Your task to perform on an android device: change the clock display to show seconds Image 0: 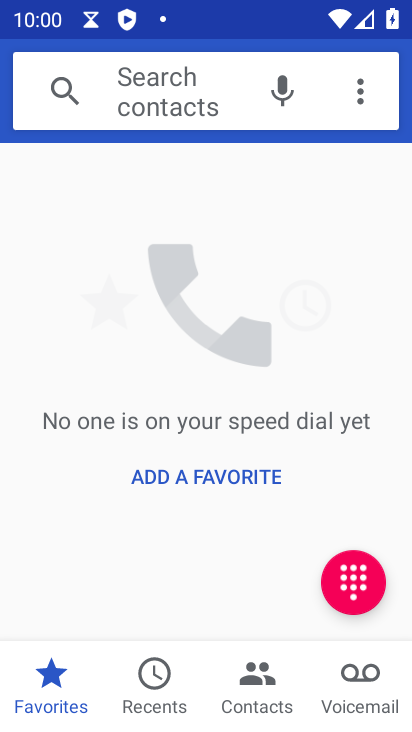
Step 0: press home button
Your task to perform on an android device: change the clock display to show seconds Image 1: 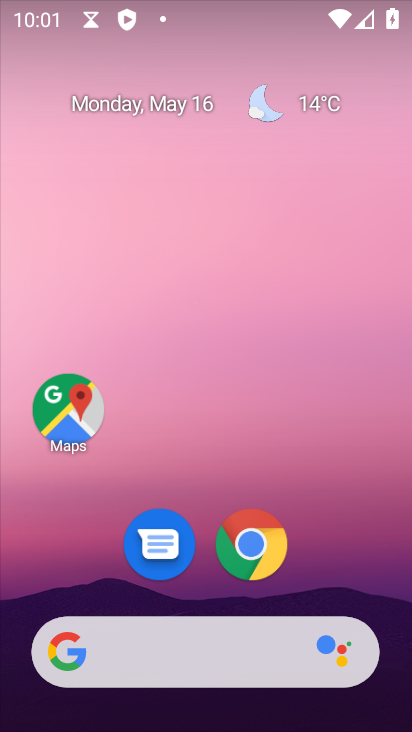
Step 1: drag from (352, 564) to (297, 162)
Your task to perform on an android device: change the clock display to show seconds Image 2: 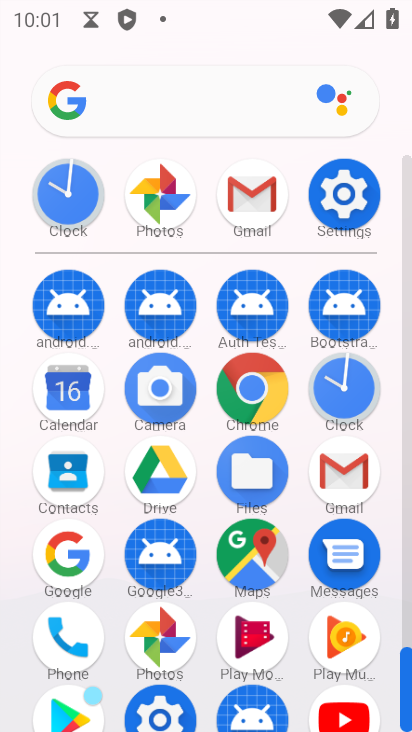
Step 2: click (348, 398)
Your task to perform on an android device: change the clock display to show seconds Image 3: 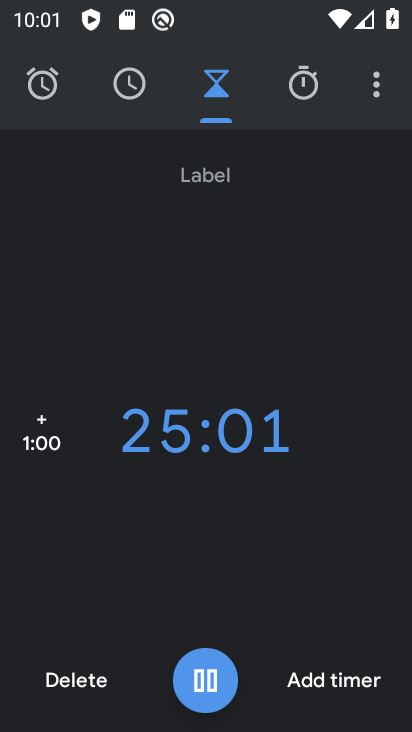
Step 3: click (377, 83)
Your task to perform on an android device: change the clock display to show seconds Image 4: 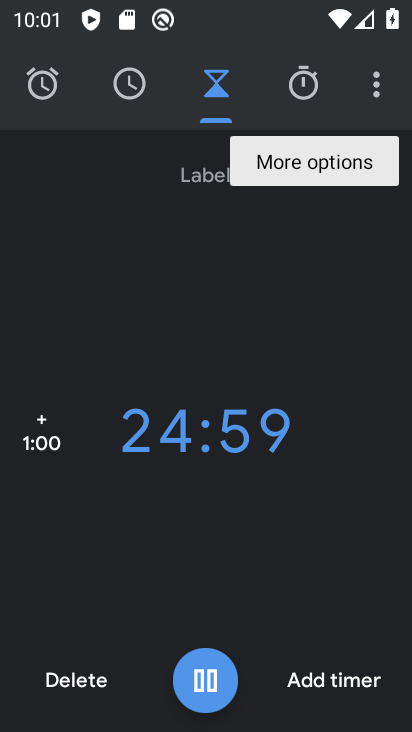
Step 4: click (380, 87)
Your task to perform on an android device: change the clock display to show seconds Image 5: 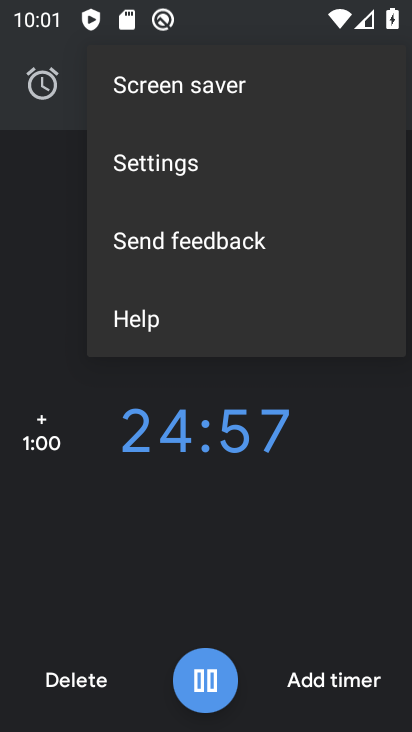
Step 5: click (238, 172)
Your task to perform on an android device: change the clock display to show seconds Image 6: 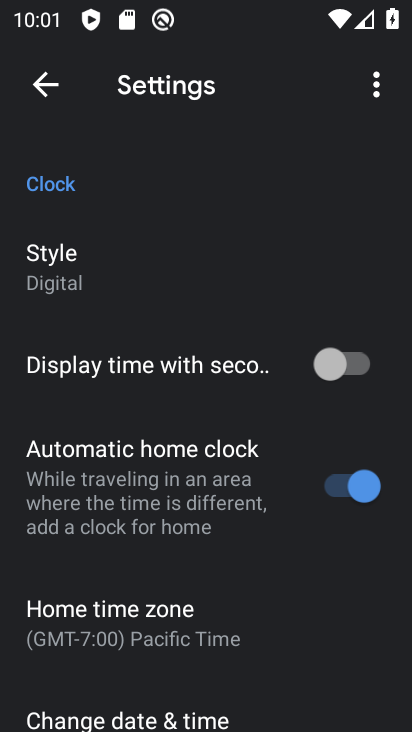
Step 6: click (344, 359)
Your task to perform on an android device: change the clock display to show seconds Image 7: 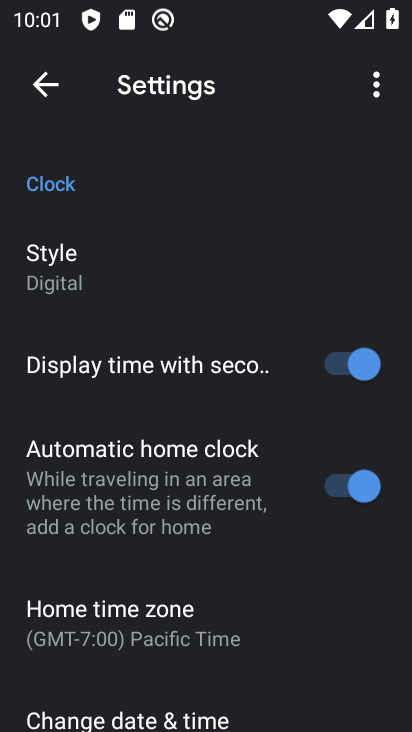
Step 7: task complete